Your task to perform on an android device: turn on airplane mode Image 0: 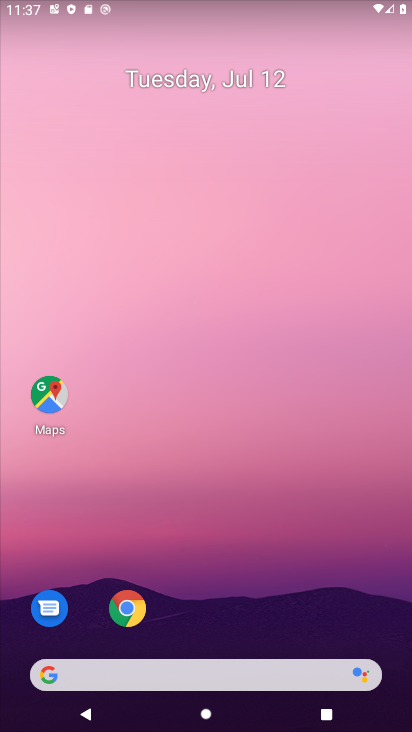
Step 0: drag from (251, 696) to (292, 213)
Your task to perform on an android device: turn on airplane mode Image 1: 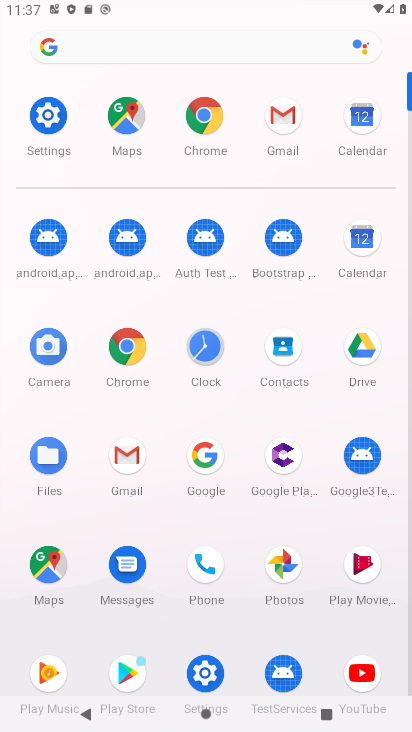
Step 1: click (49, 114)
Your task to perform on an android device: turn on airplane mode Image 2: 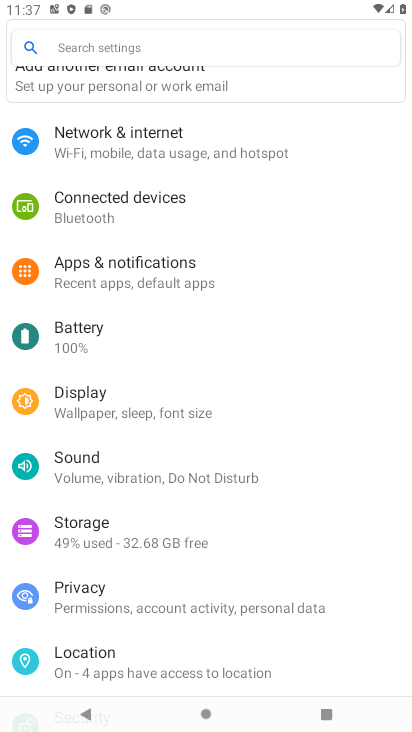
Step 2: click (116, 144)
Your task to perform on an android device: turn on airplane mode Image 3: 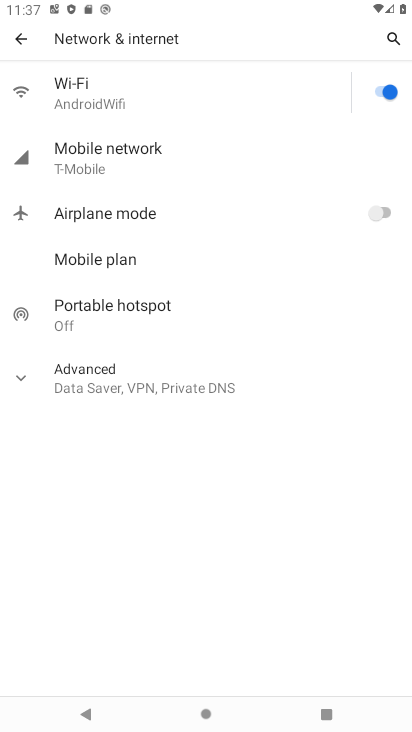
Step 3: click (388, 207)
Your task to perform on an android device: turn on airplane mode Image 4: 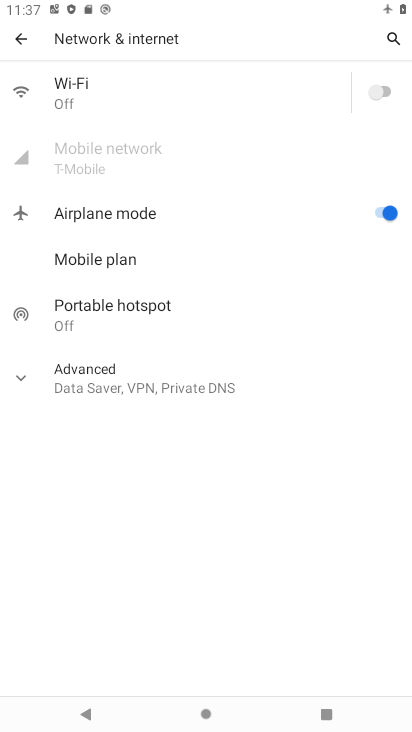
Step 4: task complete